Your task to perform on an android device: turn on the 12-hour format for clock Image 0: 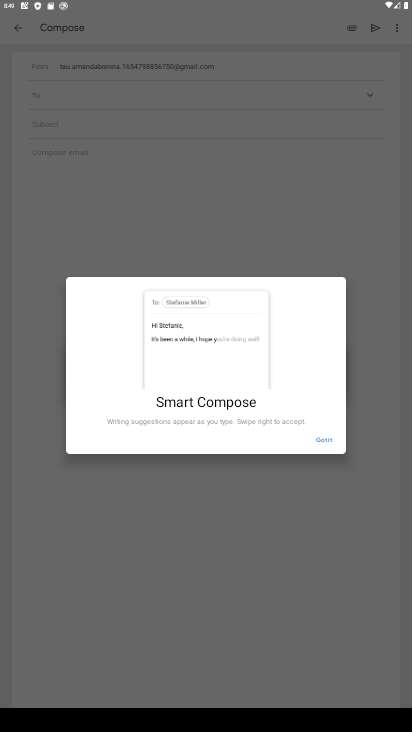
Step 0: press home button
Your task to perform on an android device: turn on the 12-hour format for clock Image 1: 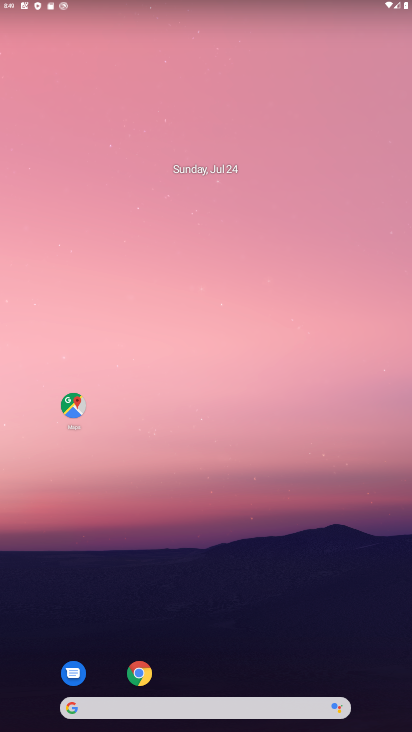
Step 1: drag from (188, 642) to (351, 100)
Your task to perform on an android device: turn on the 12-hour format for clock Image 2: 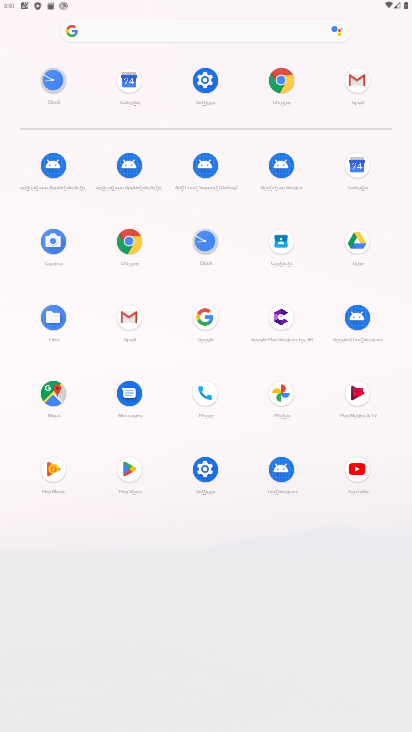
Step 2: click (203, 246)
Your task to perform on an android device: turn on the 12-hour format for clock Image 3: 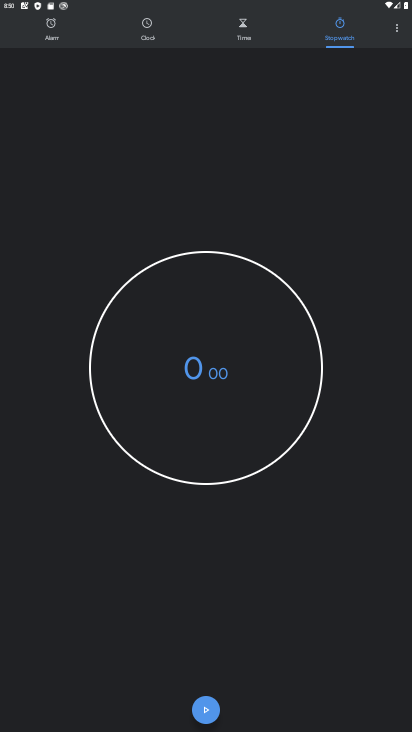
Step 3: click (405, 34)
Your task to perform on an android device: turn on the 12-hour format for clock Image 4: 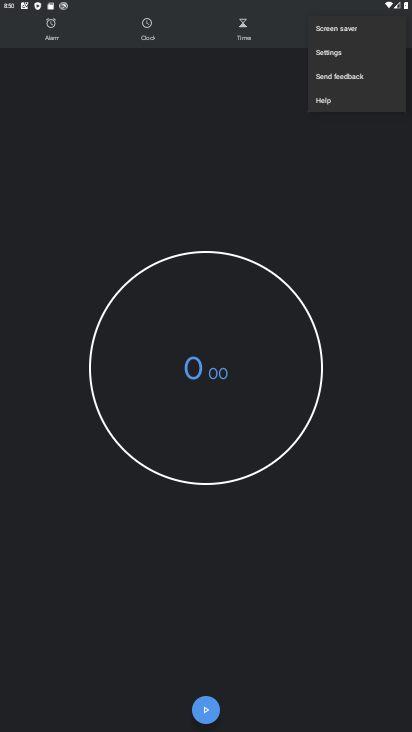
Step 4: click (335, 60)
Your task to perform on an android device: turn on the 12-hour format for clock Image 5: 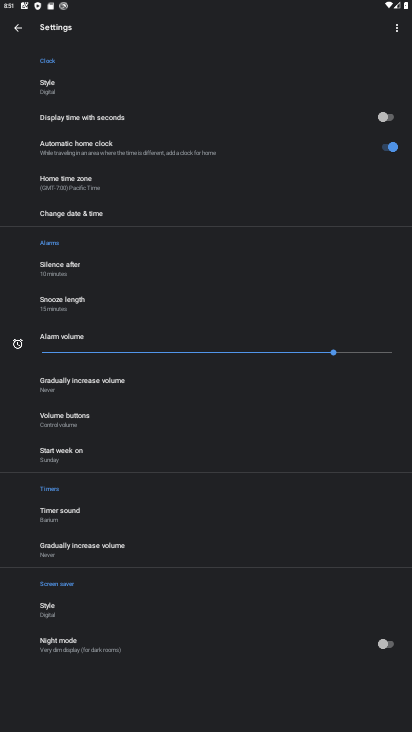
Step 5: click (80, 213)
Your task to perform on an android device: turn on the 12-hour format for clock Image 6: 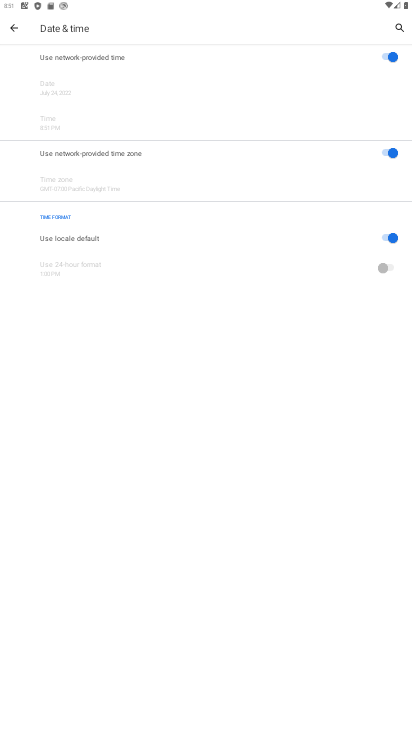
Step 6: task complete